Your task to perform on an android device: Open Android settings Image 0: 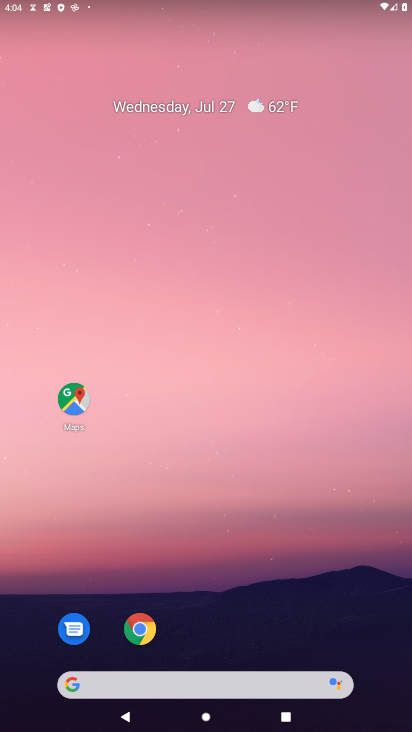
Step 0: drag from (187, 679) to (219, 79)
Your task to perform on an android device: Open Android settings Image 1: 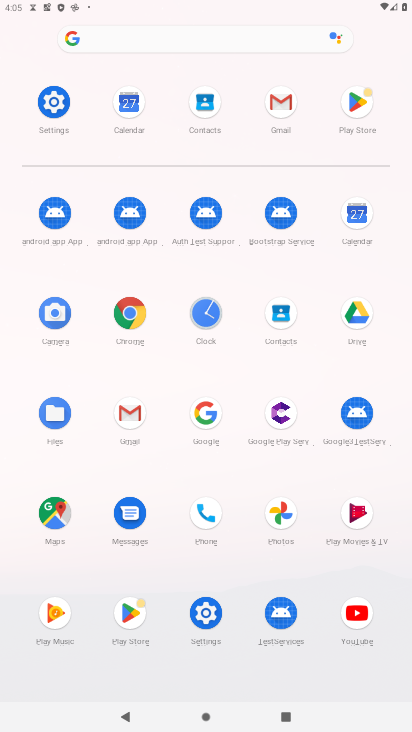
Step 1: click (54, 102)
Your task to perform on an android device: Open Android settings Image 2: 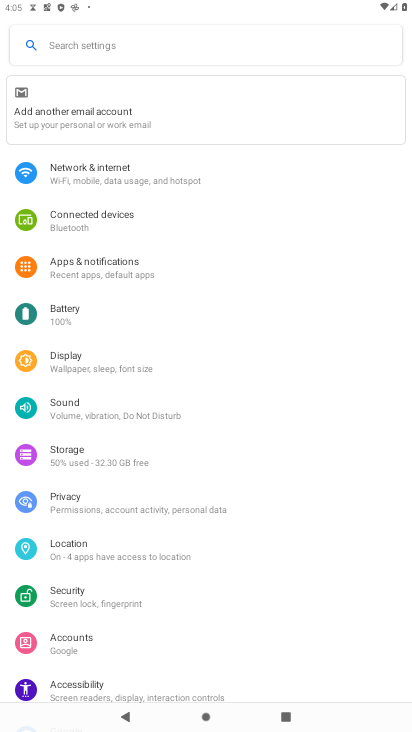
Step 2: task complete